Your task to perform on an android device: empty trash in the gmail app Image 0: 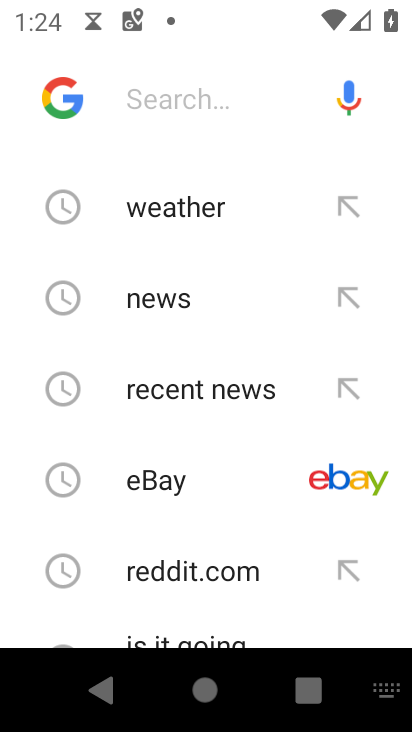
Step 0: press home button
Your task to perform on an android device: empty trash in the gmail app Image 1: 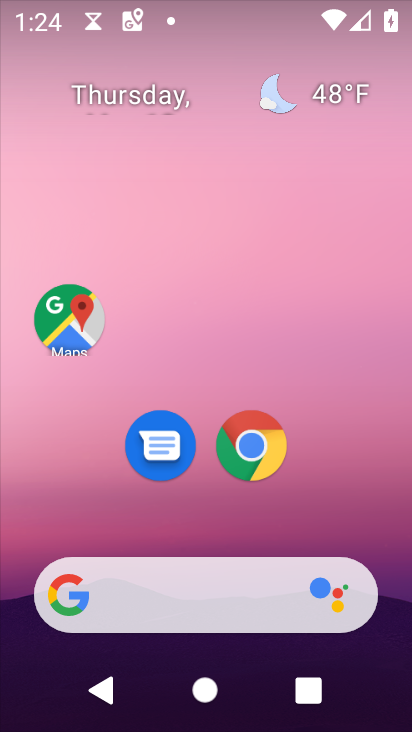
Step 1: drag from (271, 493) to (241, 70)
Your task to perform on an android device: empty trash in the gmail app Image 2: 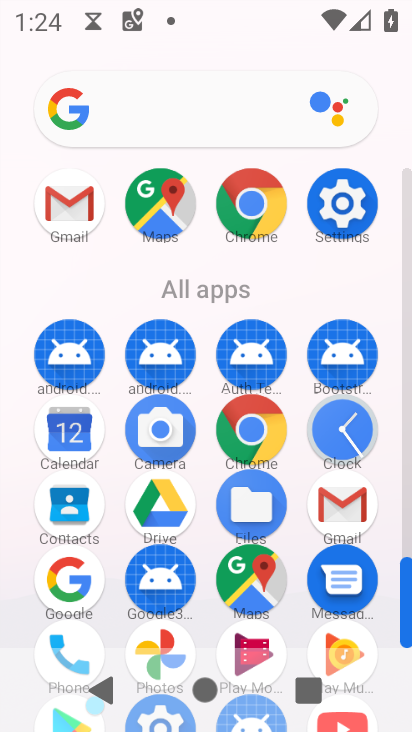
Step 2: click (338, 498)
Your task to perform on an android device: empty trash in the gmail app Image 3: 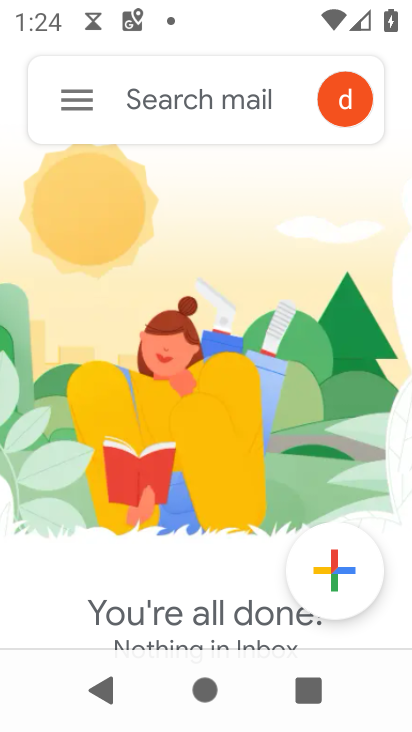
Step 3: click (73, 93)
Your task to perform on an android device: empty trash in the gmail app Image 4: 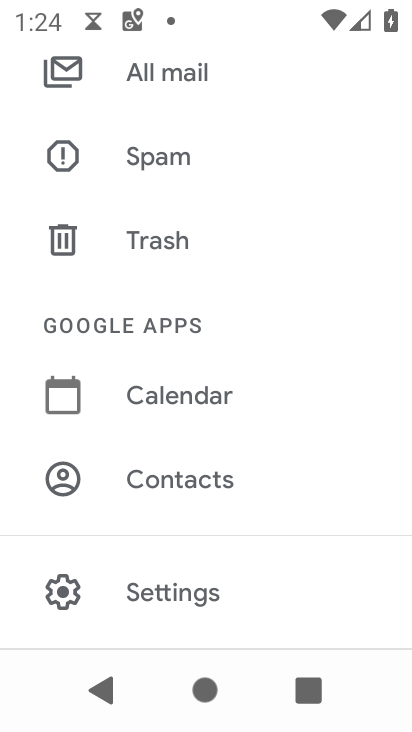
Step 4: click (133, 240)
Your task to perform on an android device: empty trash in the gmail app Image 5: 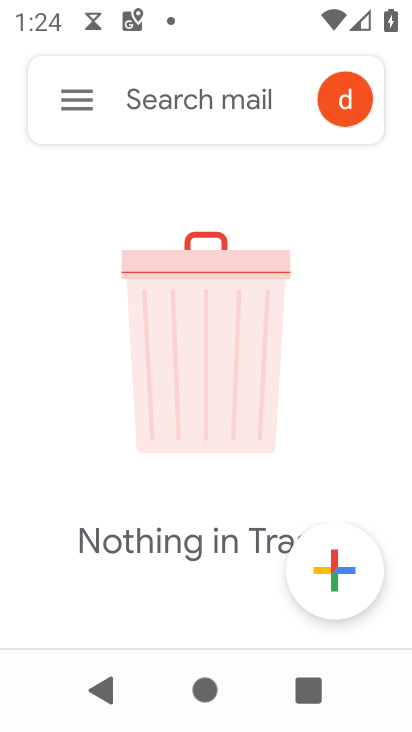
Step 5: task complete